Your task to perform on an android device: turn off sleep mode Image 0: 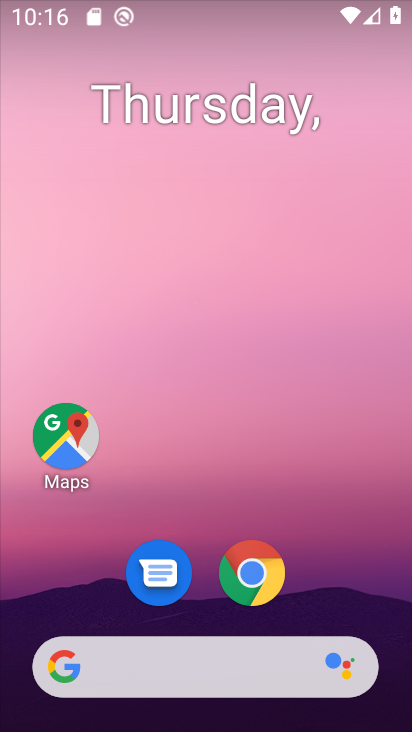
Step 0: drag from (158, 391) to (114, 27)
Your task to perform on an android device: turn off sleep mode Image 1: 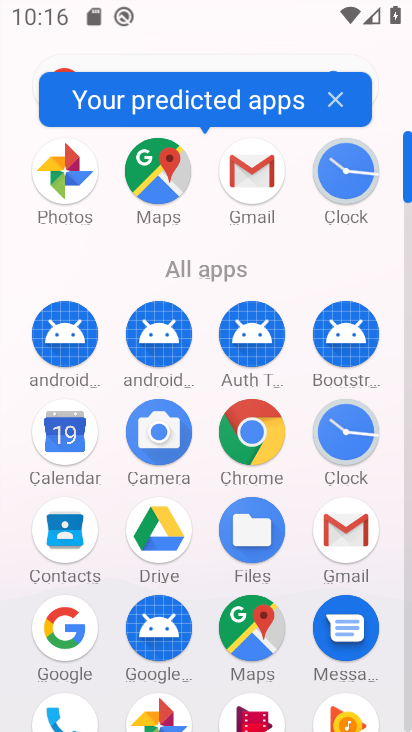
Step 1: drag from (207, 591) to (121, 17)
Your task to perform on an android device: turn off sleep mode Image 2: 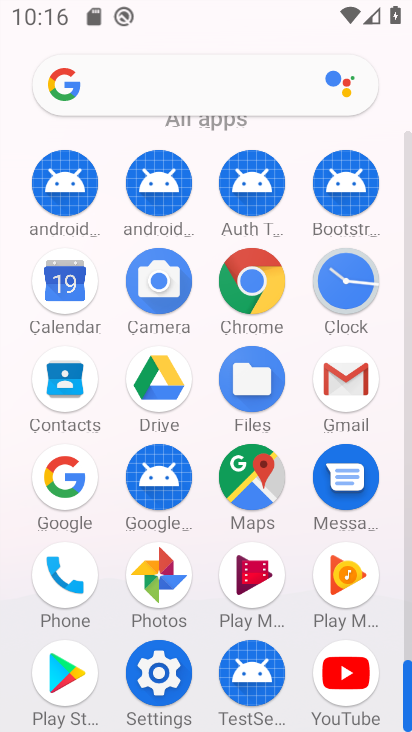
Step 2: click (153, 644)
Your task to perform on an android device: turn off sleep mode Image 3: 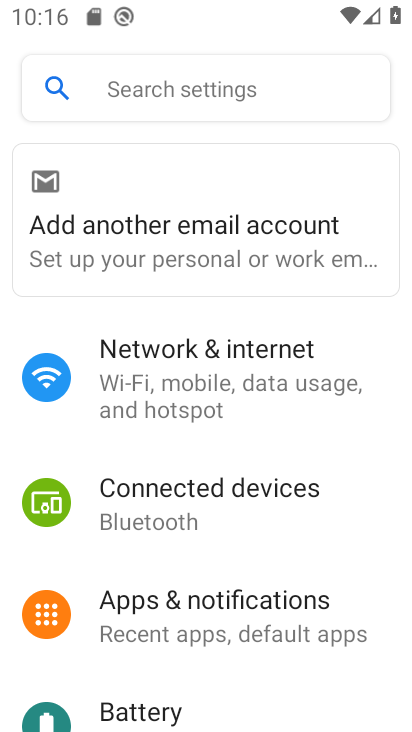
Step 3: drag from (144, 585) to (139, 263)
Your task to perform on an android device: turn off sleep mode Image 4: 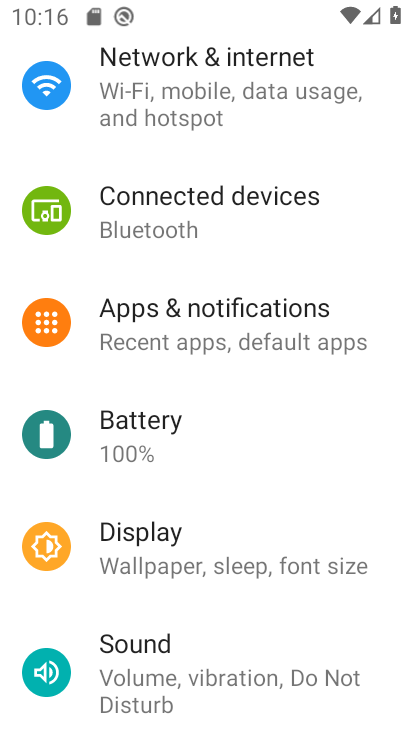
Step 4: click (208, 561)
Your task to perform on an android device: turn off sleep mode Image 5: 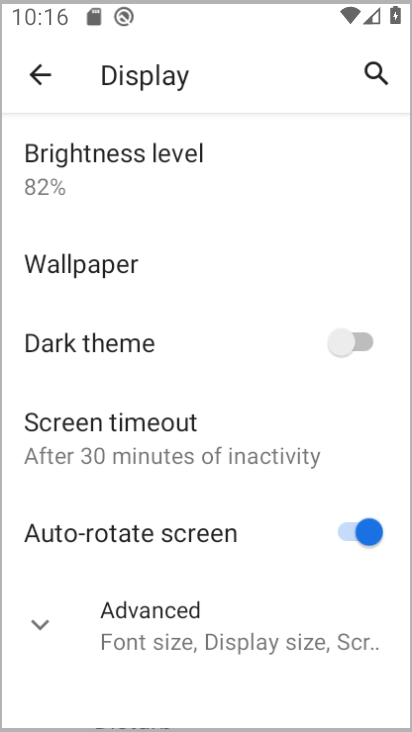
Step 5: task complete